Your task to perform on an android device: turn off javascript in the chrome app Image 0: 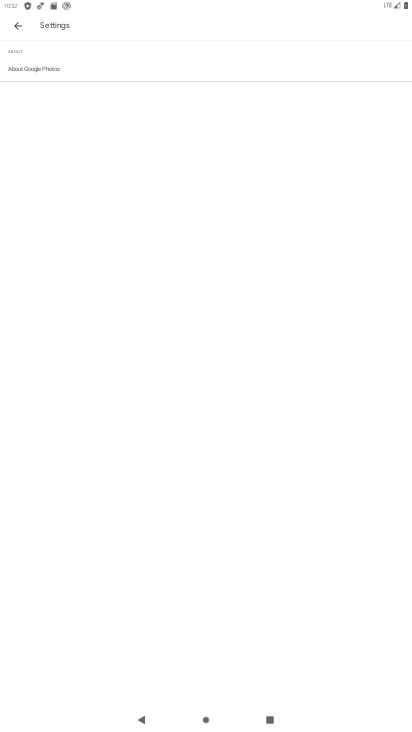
Step 0: press home button
Your task to perform on an android device: turn off javascript in the chrome app Image 1: 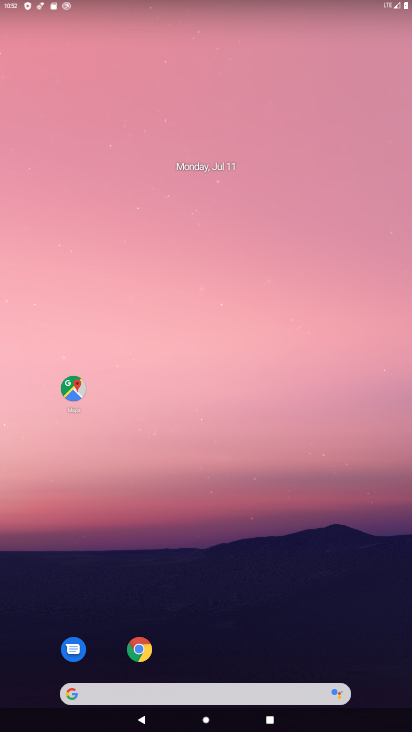
Step 1: drag from (312, 625) to (300, 122)
Your task to perform on an android device: turn off javascript in the chrome app Image 2: 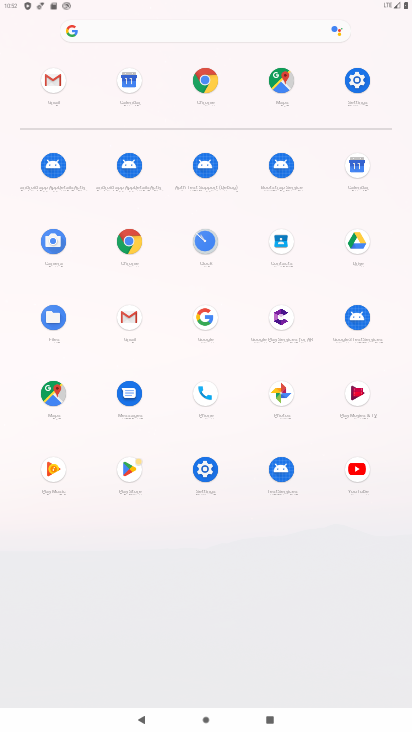
Step 2: click (129, 241)
Your task to perform on an android device: turn off javascript in the chrome app Image 3: 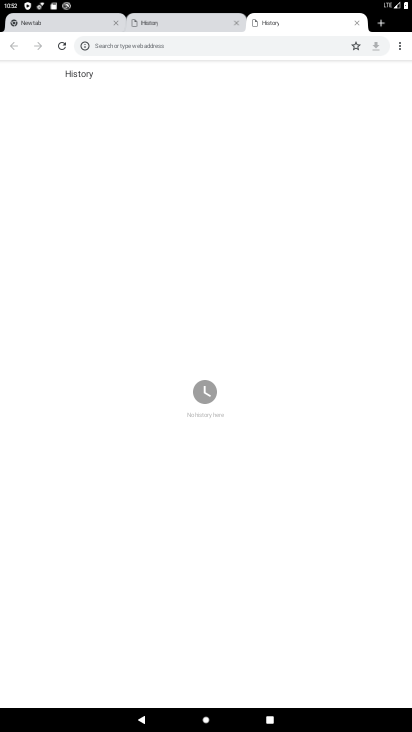
Step 3: drag from (403, 43) to (307, 214)
Your task to perform on an android device: turn off javascript in the chrome app Image 4: 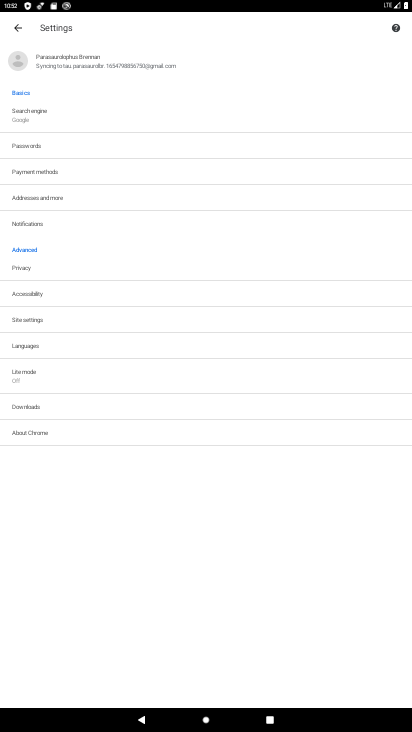
Step 4: click (49, 318)
Your task to perform on an android device: turn off javascript in the chrome app Image 5: 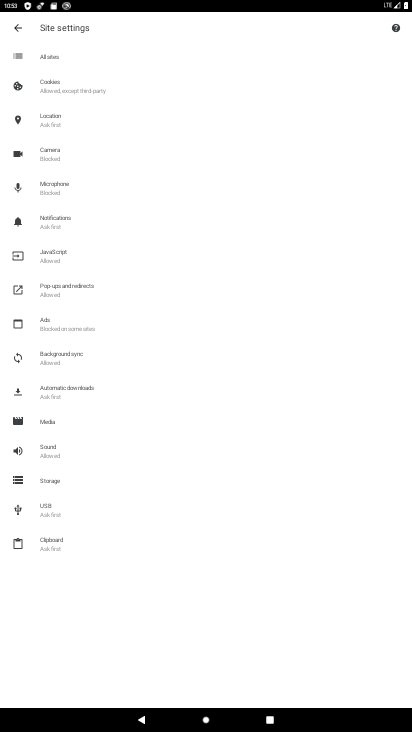
Step 5: click (37, 256)
Your task to perform on an android device: turn off javascript in the chrome app Image 6: 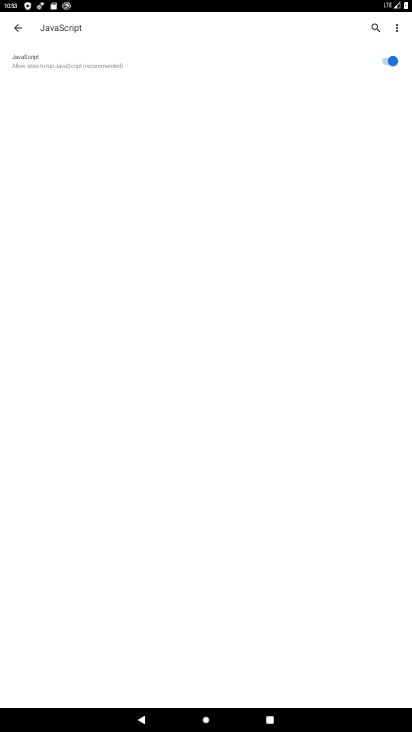
Step 6: click (394, 55)
Your task to perform on an android device: turn off javascript in the chrome app Image 7: 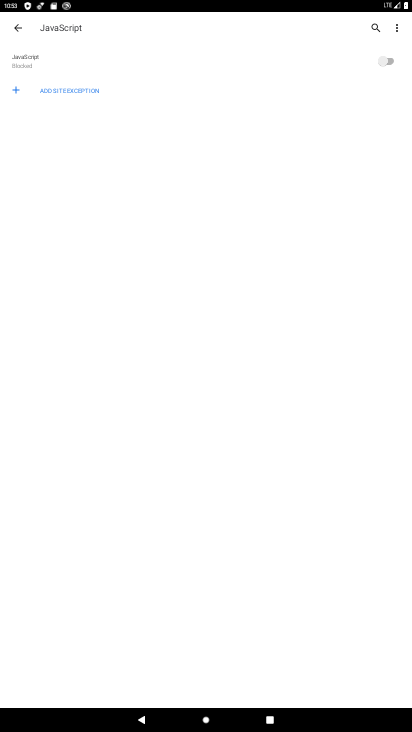
Step 7: task complete